Your task to perform on an android device: Open the Play Movies app and select the watchlist tab. Image 0: 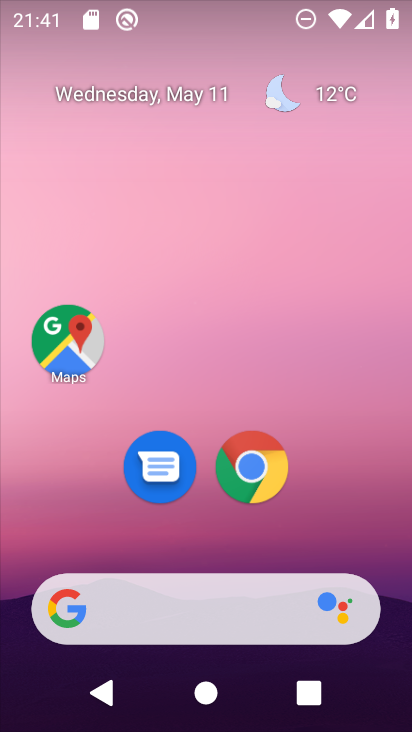
Step 0: drag from (208, 548) to (212, 111)
Your task to perform on an android device: Open the Play Movies app and select the watchlist tab. Image 1: 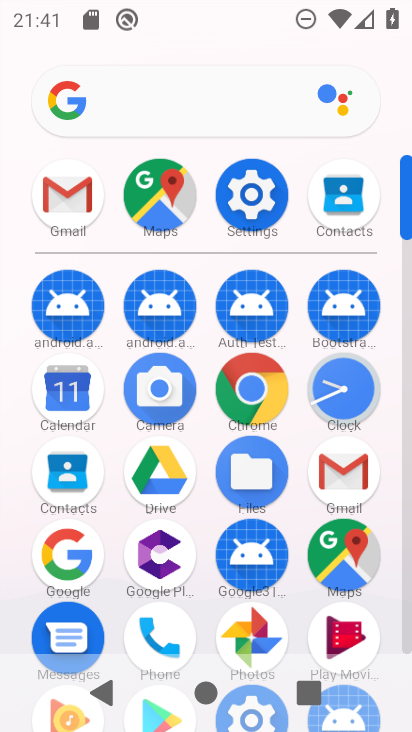
Step 1: click (349, 631)
Your task to perform on an android device: Open the Play Movies app and select the watchlist tab. Image 2: 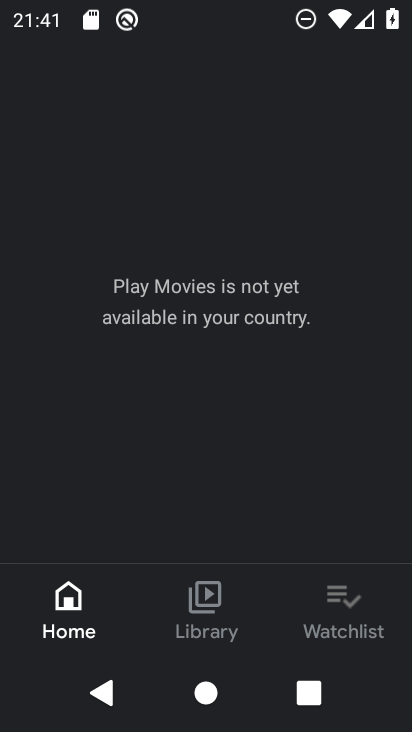
Step 2: click (344, 609)
Your task to perform on an android device: Open the Play Movies app and select the watchlist tab. Image 3: 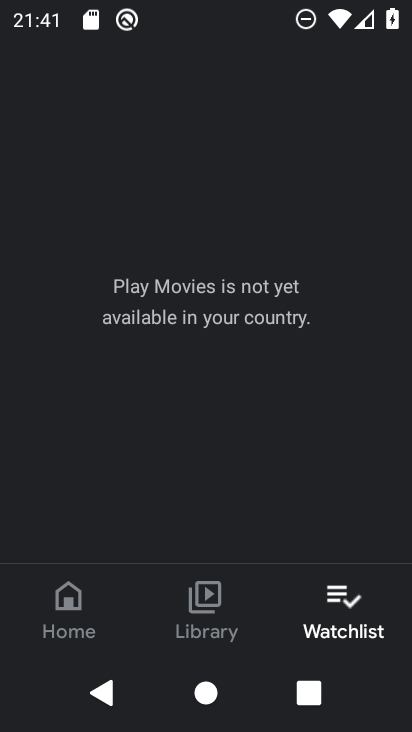
Step 3: task complete